Your task to perform on an android device: Turn off the flashlight Image 0: 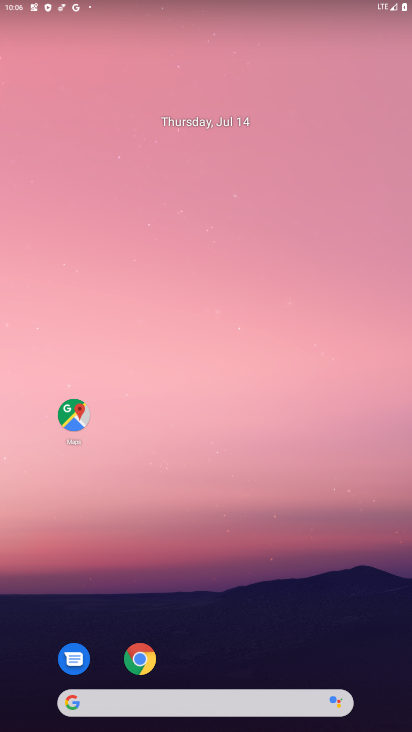
Step 0: drag from (323, 578) to (294, 107)
Your task to perform on an android device: Turn off the flashlight Image 1: 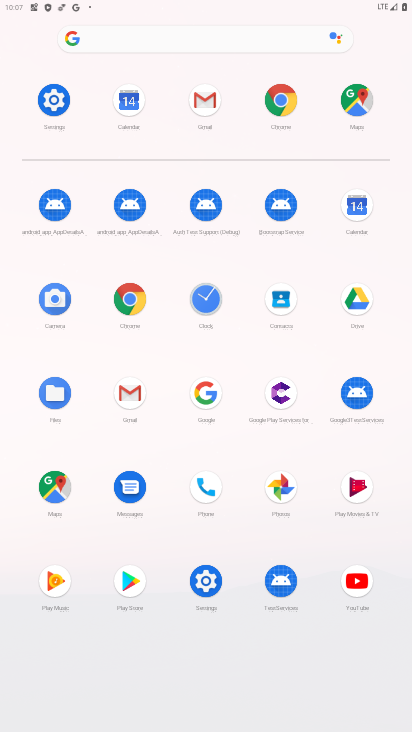
Step 1: click (62, 95)
Your task to perform on an android device: Turn off the flashlight Image 2: 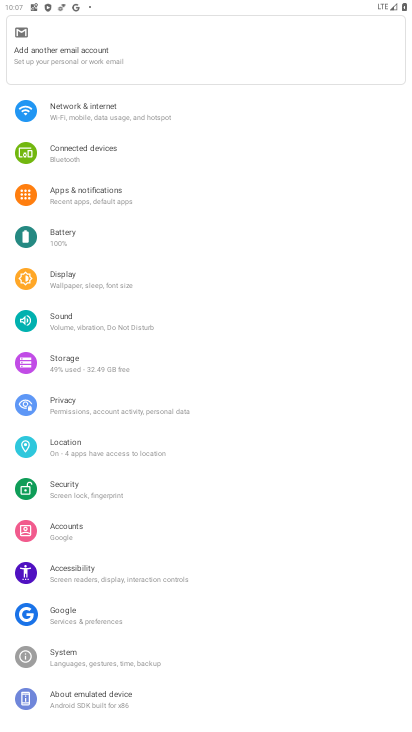
Step 2: click (77, 284)
Your task to perform on an android device: Turn off the flashlight Image 3: 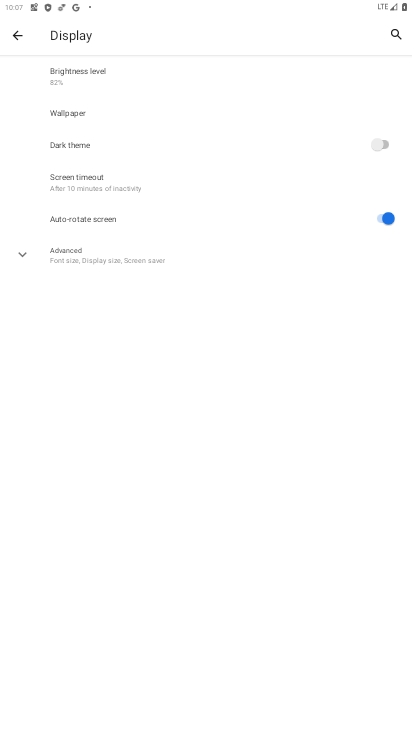
Step 3: click (142, 252)
Your task to perform on an android device: Turn off the flashlight Image 4: 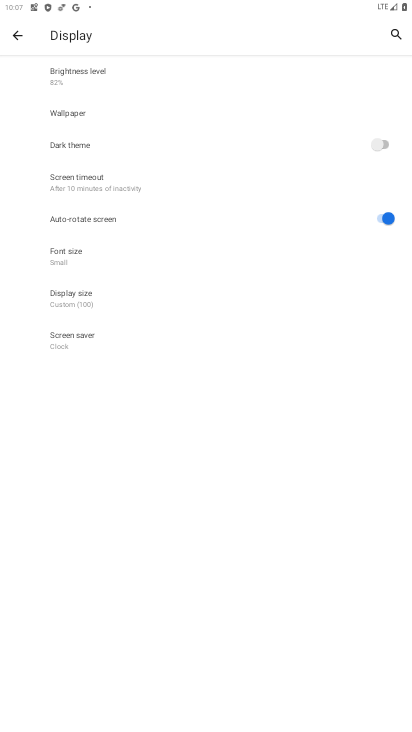
Step 4: task complete